Your task to perform on an android device: turn off priority inbox in the gmail app Image 0: 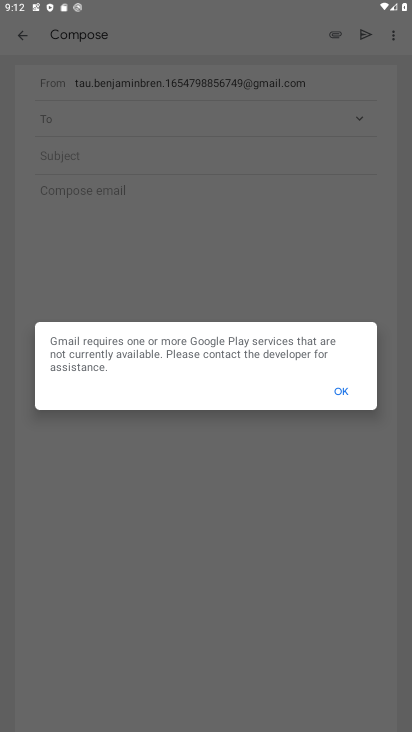
Step 0: press home button
Your task to perform on an android device: turn off priority inbox in the gmail app Image 1: 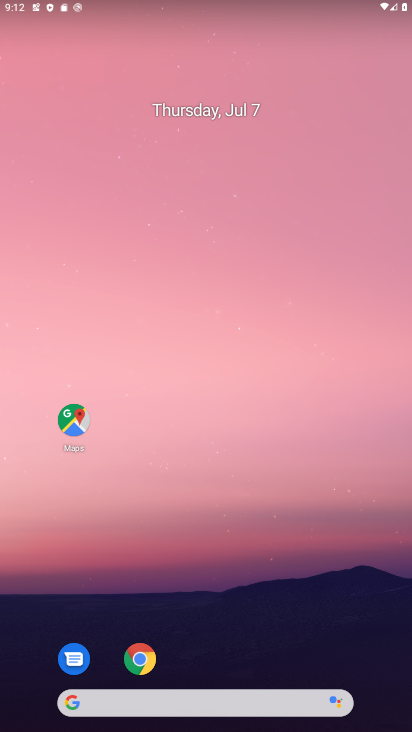
Step 1: drag from (210, 662) to (219, 149)
Your task to perform on an android device: turn off priority inbox in the gmail app Image 2: 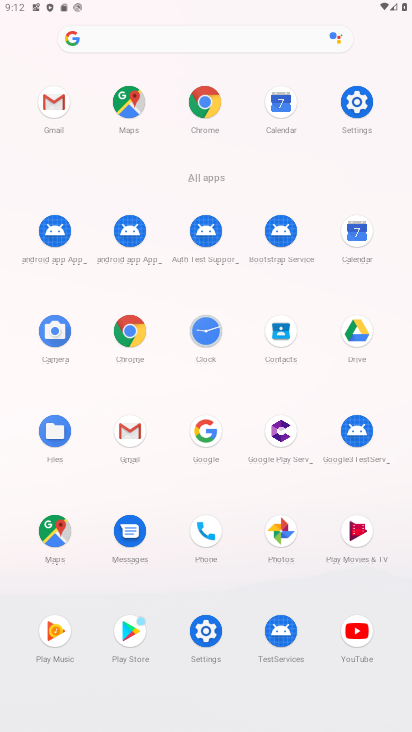
Step 2: click (128, 427)
Your task to perform on an android device: turn off priority inbox in the gmail app Image 3: 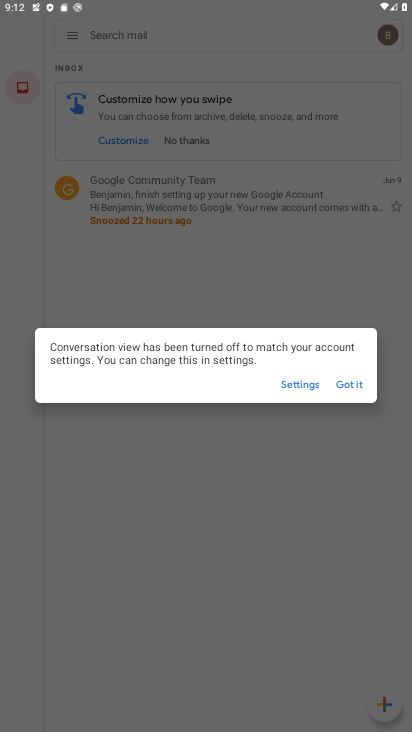
Step 3: click (300, 384)
Your task to perform on an android device: turn off priority inbox in the gmail app Image 4: 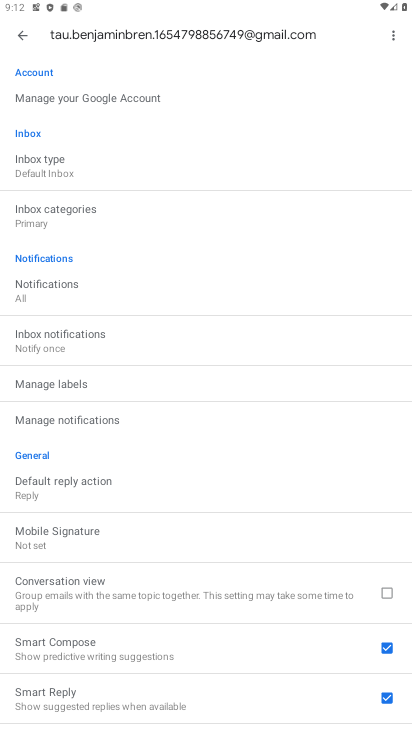
Step 4: click (57, 170)
Your task to perform on an android device: turn off priority inbox in the gmail app Image 5: 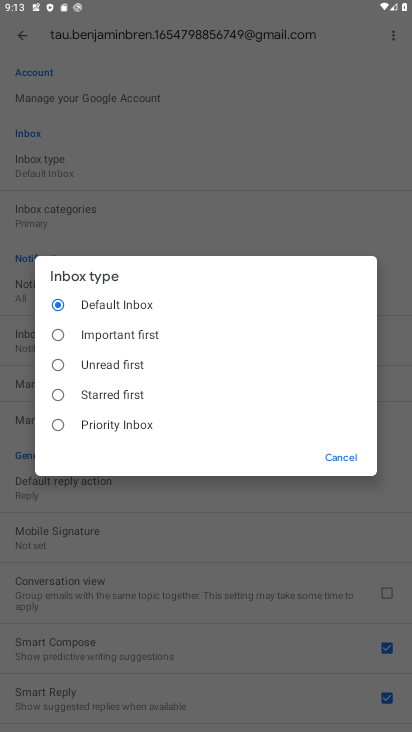
Step 5: click (62, 331)
Your task to perform on an android device: turn off priority inbox in the gmail app Image 6: 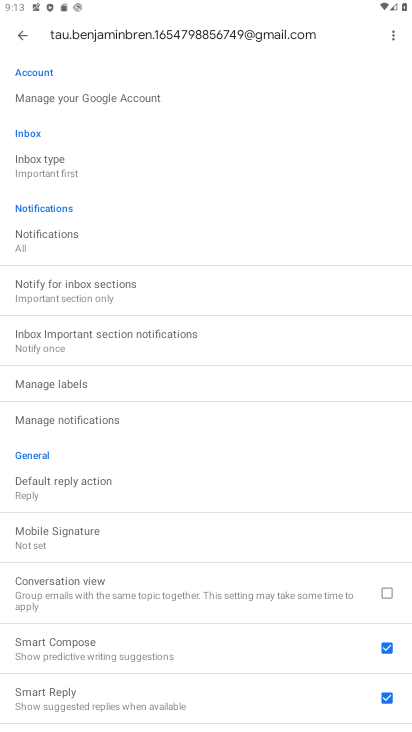
Step 6: task complete